Your task to perform on an android device: Turn on the flashlight Image 0: 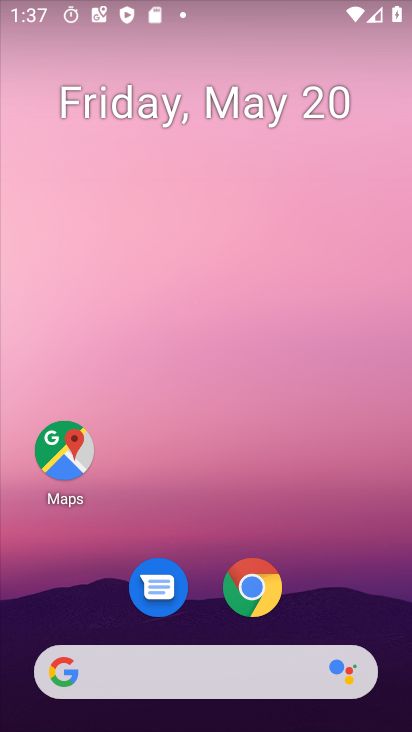
Step 0: drag from (279, 548) to (330, 179)
Your task to perform on an android device: Turn on the flashlight Image 1: 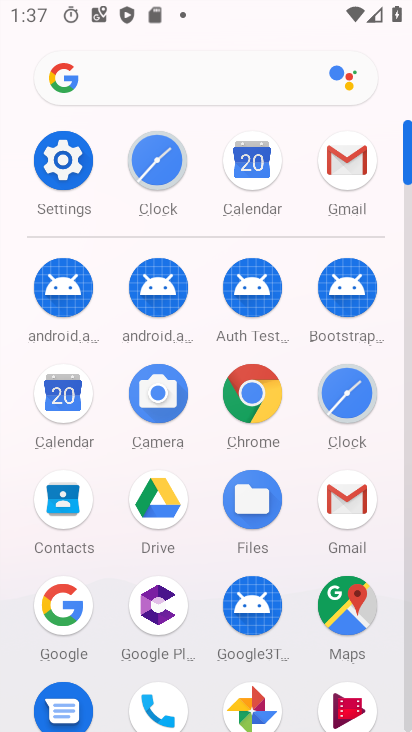
Step 1: click (56, 147)
Your task to perform on an android device: Turn on the flashlight Image 2: 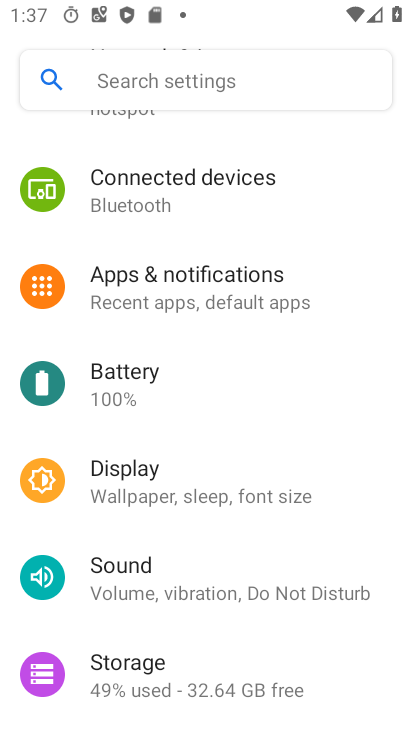
Step 2: click (172, 349)
Your task to perform on an android device: Turn on the flashlight Image 3: 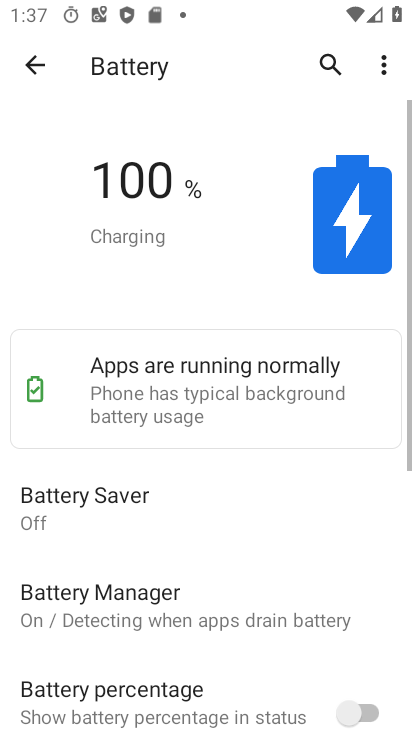
Step 3: click (39, 52)
Your task to perform on an android device: Turn on the flashlight Image 4: 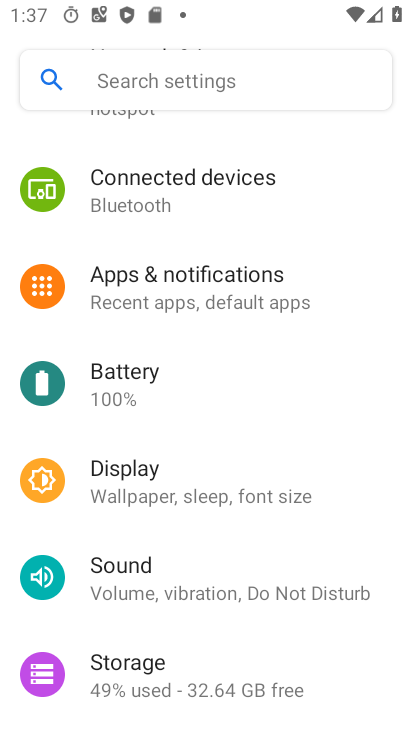
Step 4: click (186, 480)
Your task to perform on an android device: Turn on the flashlight Image 5: 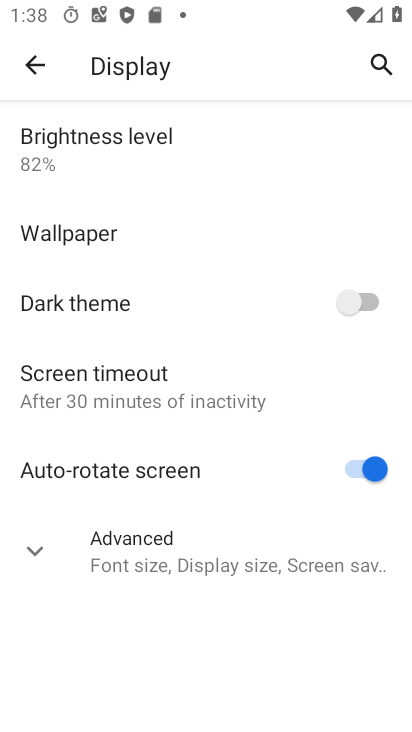
Step 5: task complete